Your task to perform on an android device: Open Google Chrome Image 0: 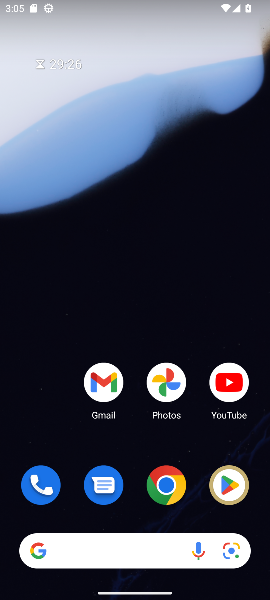
Step 0: press home button
Your task to perform on an android device: Open Google Chrome Image 1: 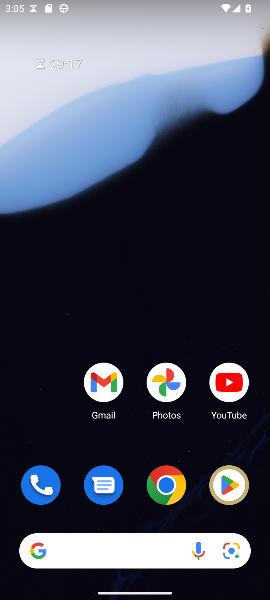
Step 1: press home button
Your task to perform on an android device: Open Google Chrome Image 2: 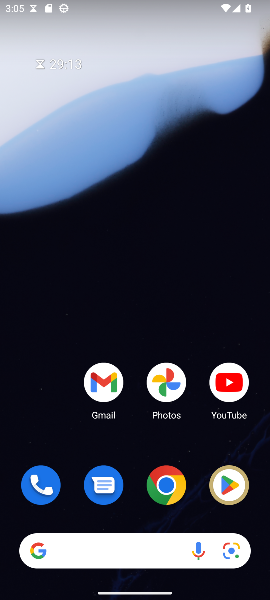
Step 2: click (164, 480)
Your task to perform on an android device: Open Google Chrome Image 3: 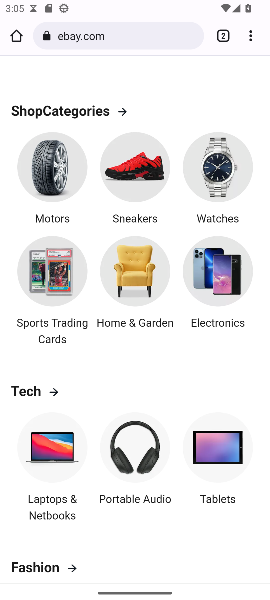
Step 3: click (219, 29)
Your task to perform on an android device: Open Google Chrome Image 4: 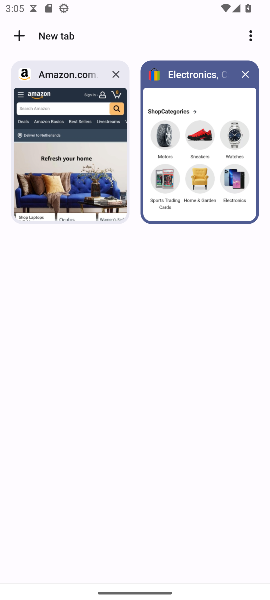
Step 4: click (20, 32)
Your task to perform on an android device: Open Google Chrome Image 5: 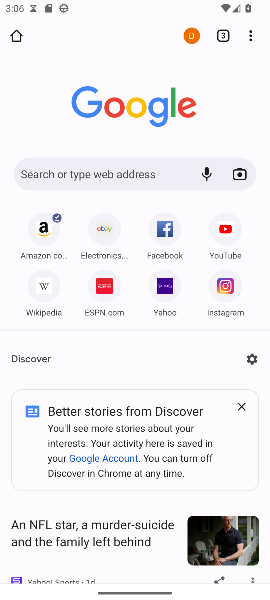
Step 5: task complete